Your task to perform on an android device: toggle javascript in the chrome app Image 0: 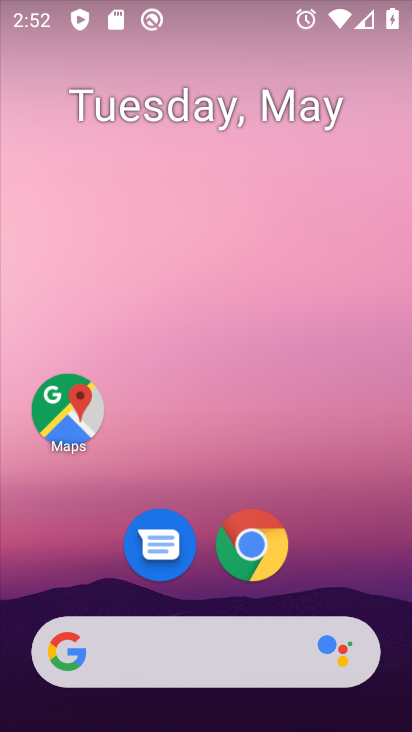
Step 0: drag from (256, 172) to (188, 23)
Your task to perform on an android device: toggle javascript in the chrome app Image 1: 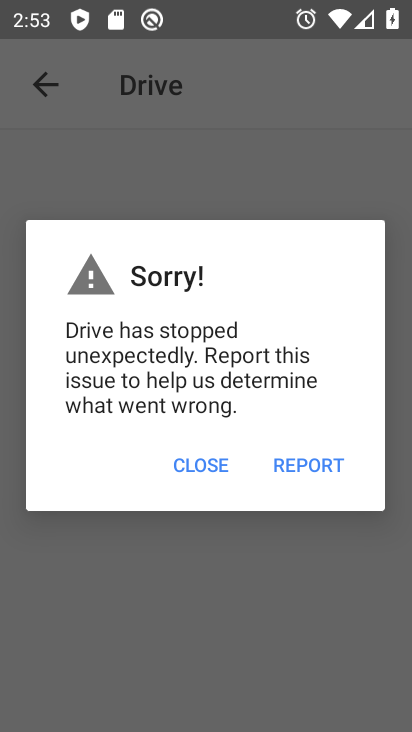
Step 1: press home button
Your task to perform on an android device: toggle javascript in the chrome app Image 2: 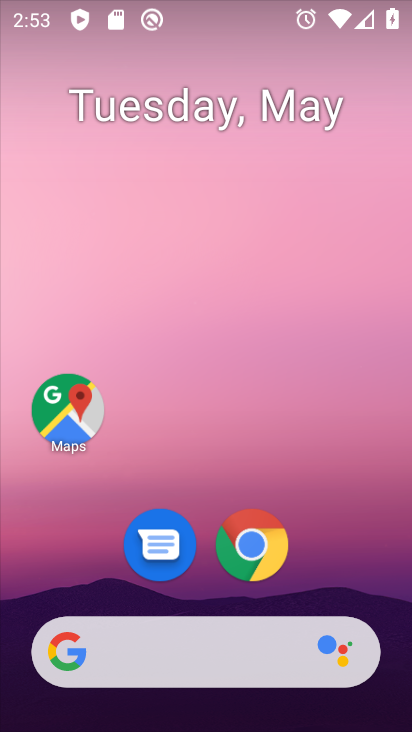
Step 2: click (246, 518)
Your task to perform on an android device: toggle javascript in the chrome app Image 3: 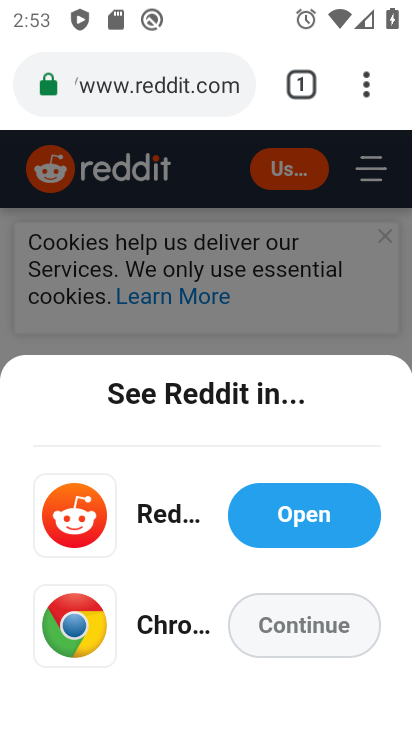
Step 3: click (324, 622)
Your task to perform on an android device: toggle javascript in the chrome app Image 4: 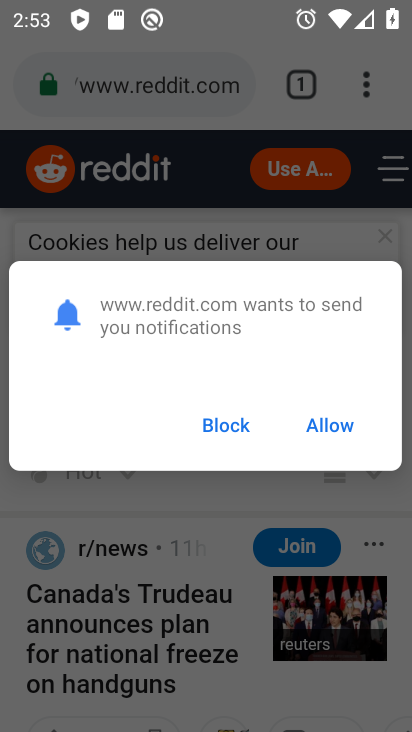
Step 4: click (336, 426)
Your task to perform on an android device: toggle javascript in the chrome app Image 5: 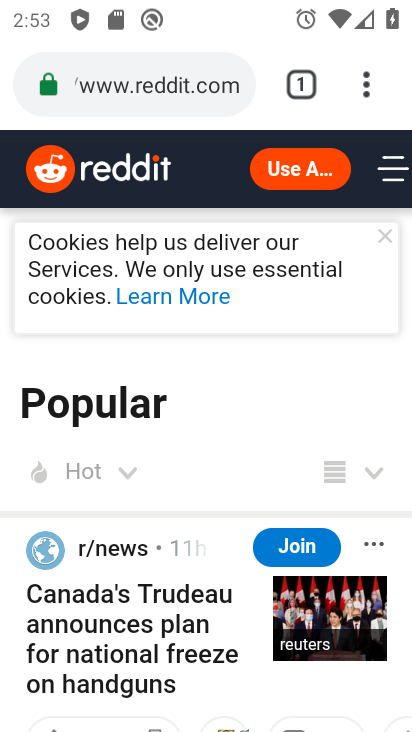
Step 5: drag from (366, 78) to (116, 593)
Your task to perform on an android device: toggle javascript in the chrome app Image 6: 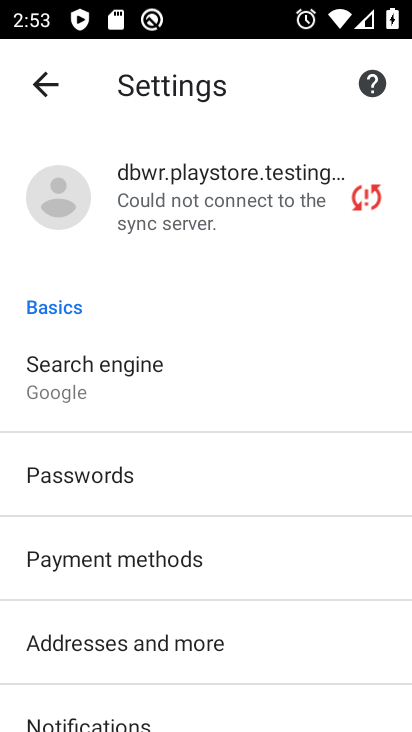
Step 6: drag from (135, 534) to (75, 97)
Your task to perform on an android device: toggle javascript in the chrome app Image 7: 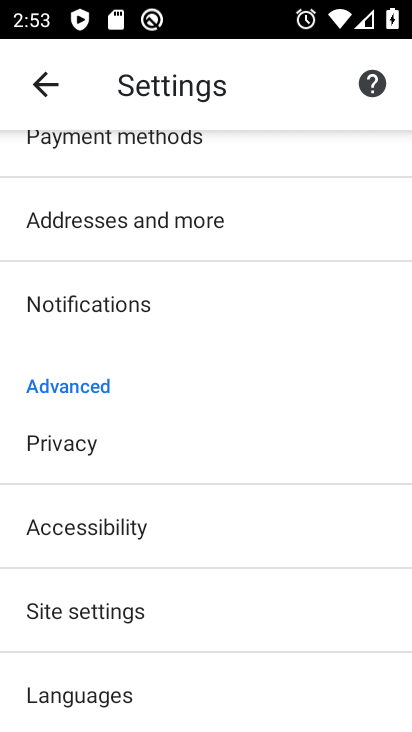
Step 7: click (128, 626)
Your task to perform on an android device: toggle javascript in the chrome app Image 8: 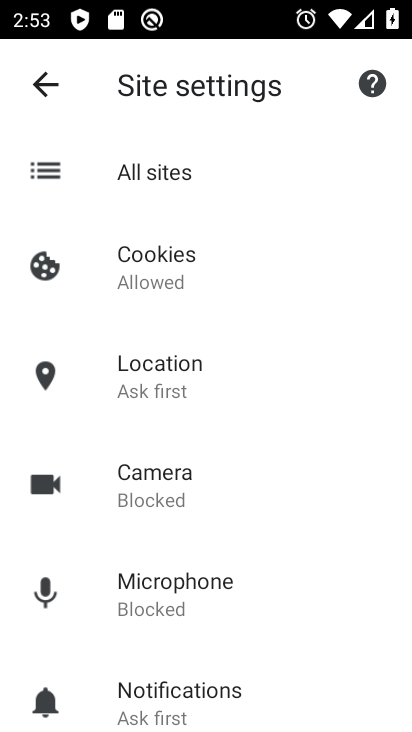
Step 8: drag from (187, 679) to (169, 243)
Your task to perform on an android device: toggle javascript in the chrome app Image 9: 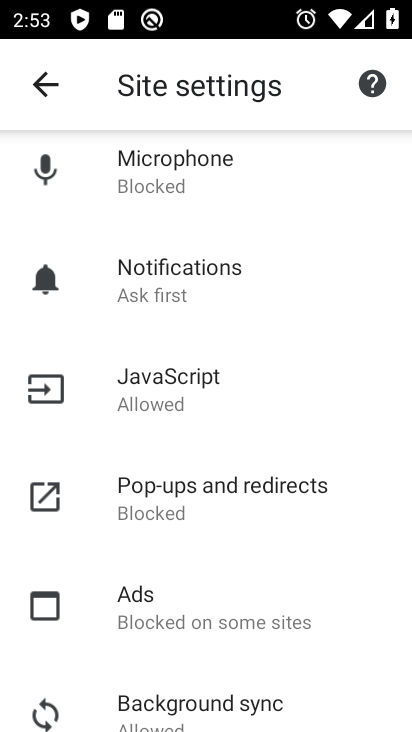
Step 9: click (192, 383)
Your task to perform on an android device: toggle javascript in the chrome app Image 10: 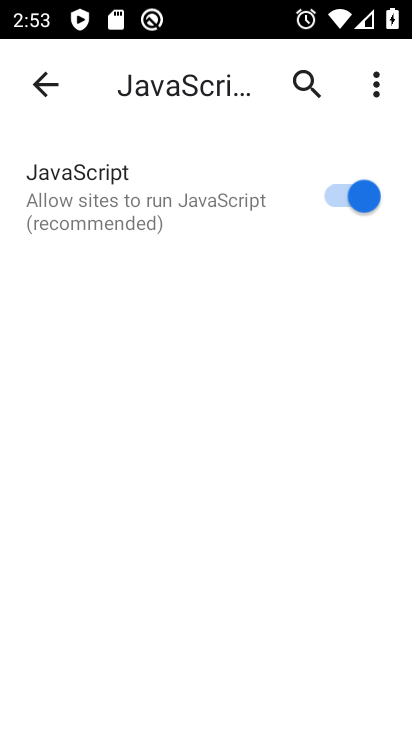
Step 10: task complete